Your task to perform on an android device: add a label to a message in the gmail app Image 0: 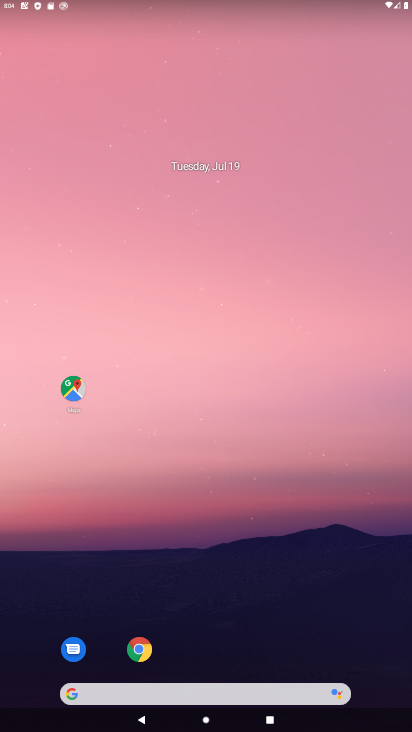
Step 0: drag from (219, 670) to (263, 1)
Your task to perform on an android device: add a label to a message in the gmail app Image 1: 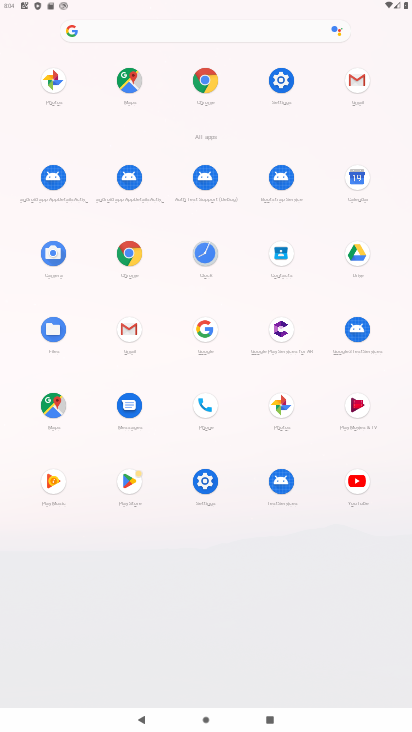
Step 1: click (125, 326)
Your task to perform on an android device: add a label to a message in the gmail app Image 2: 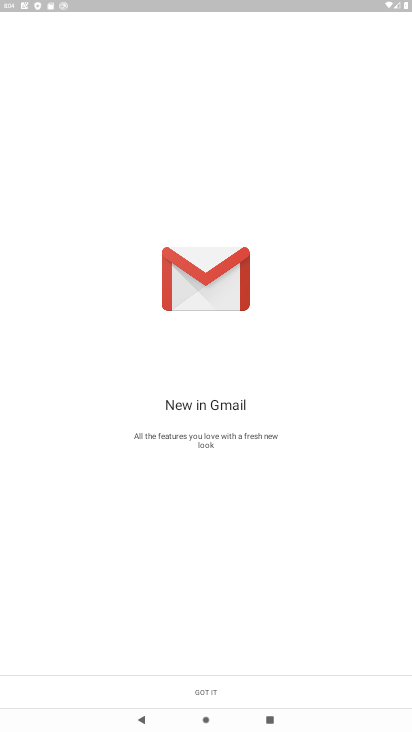
Step 2: click (227, 686)
Your task to perform on an android device: add a label to a message in the gmail app Image 3: 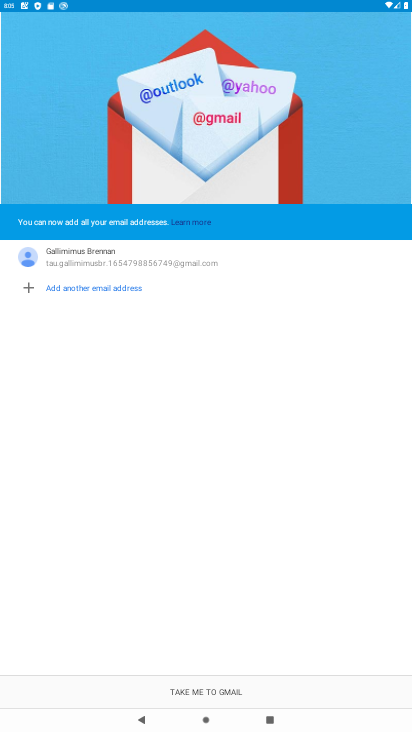
Step 3: click (211, 689)
Your task to perform on an android device: add a label to a message in the gmail app Image 4: 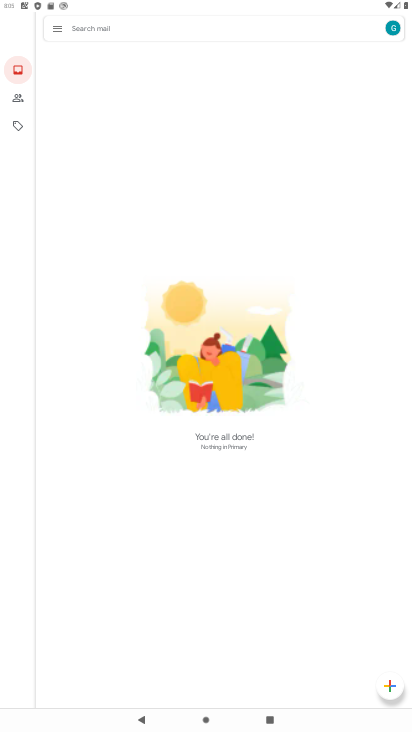
Step 4: task complete